Your task to perform on an android device: open a bookmark in the chrome app Image 0: 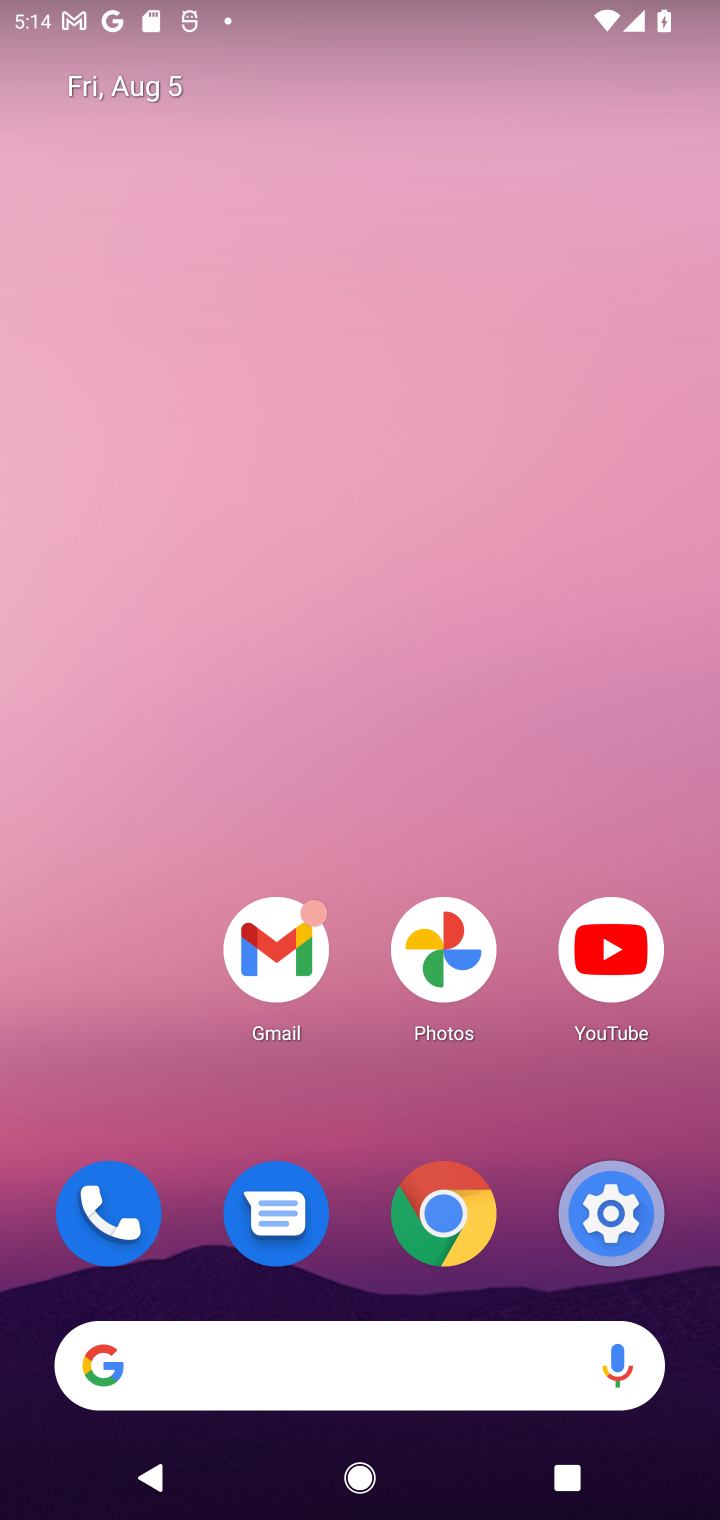
Step 0: click (443, 1243)
Your task to perform on an android device: open a bookmark in the chrome app Image 1: 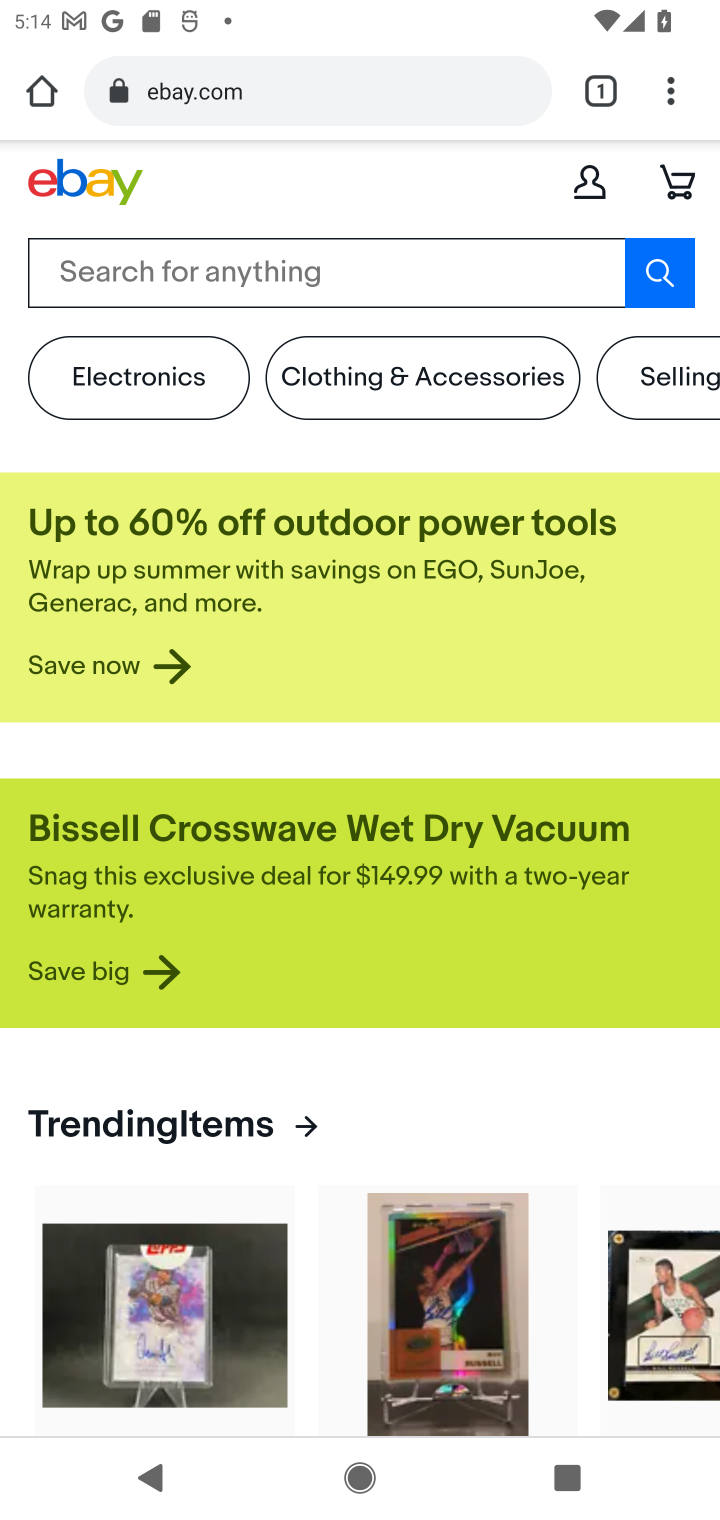
Step 1: click (665, 113)
Your task to perform on an android device: open a bookmark in the chrome app Image 2: 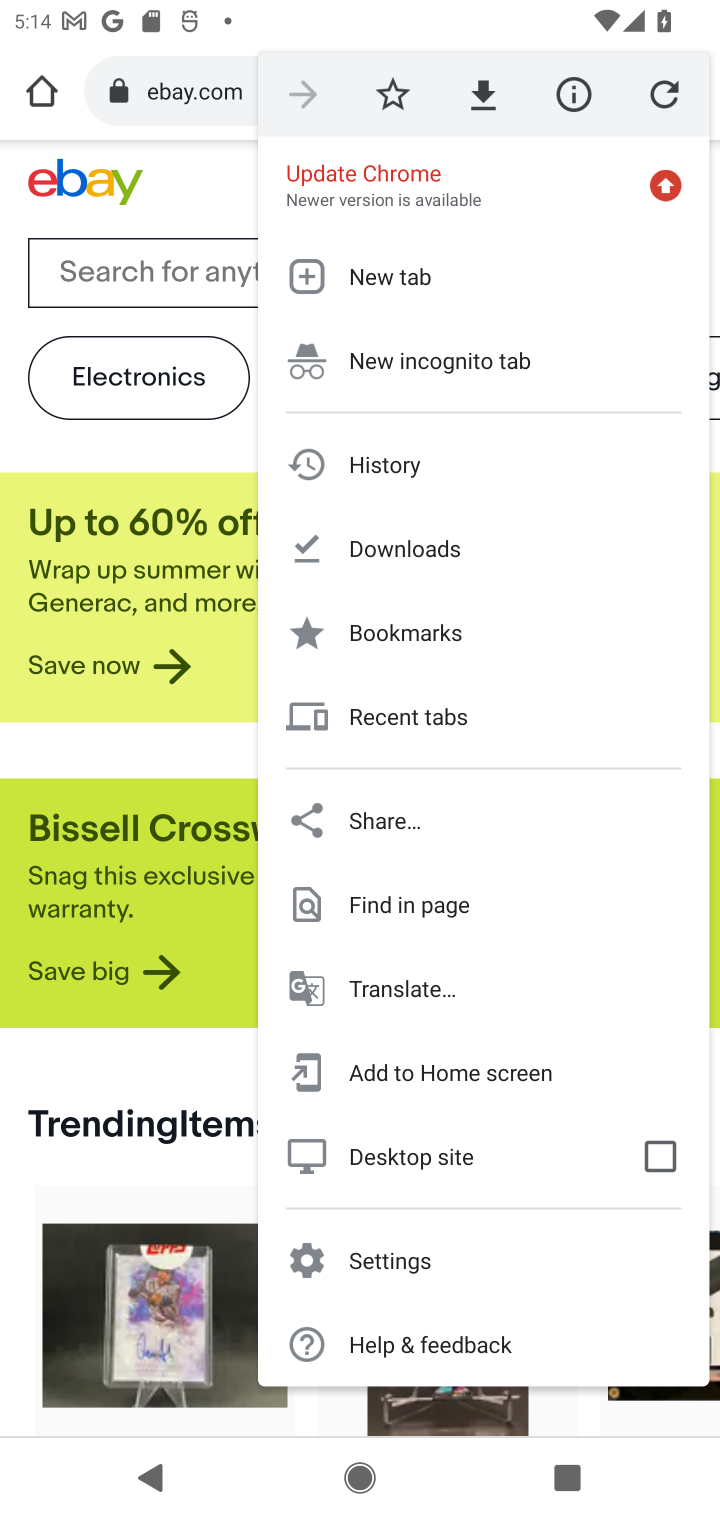
Step 2: click (349, 642)
Your task to perform on an android device: open a bookmark in the chrome app Image 3: 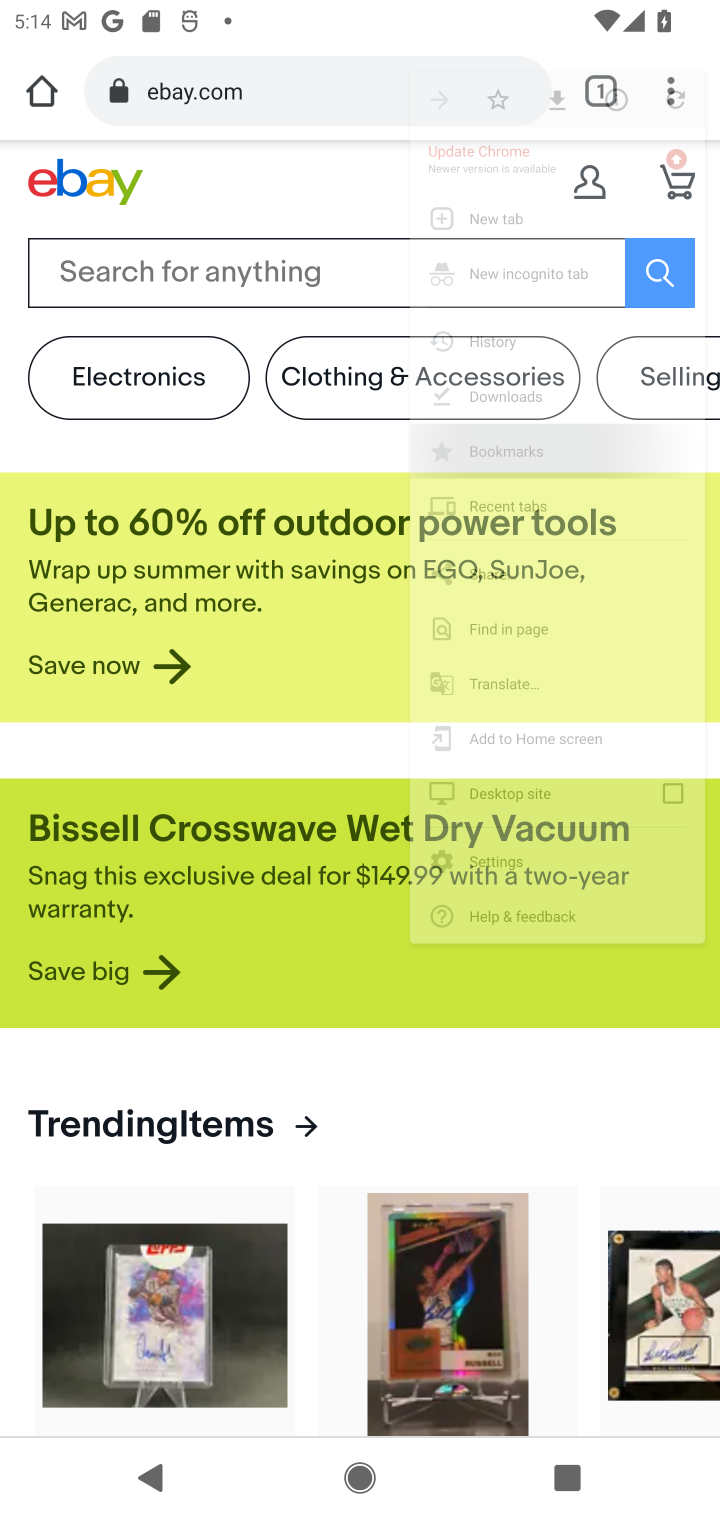
Step 3: task complete